Your task to perform on an android device: When is my next appointment? Image 0: 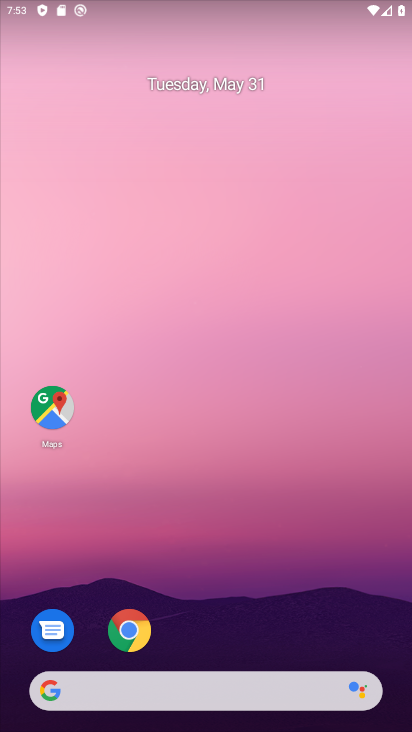
Step 0: drag from (270, 649) to (195, 79)
Your task to perform on an android device: When is my next appointment? Image 1: 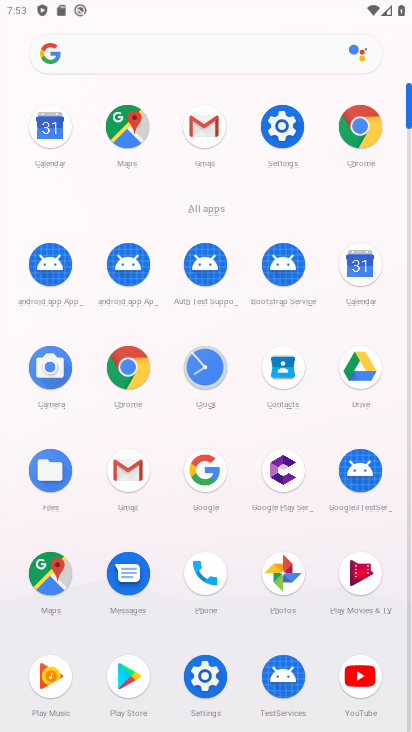
Step 1: click (354, 273)
Your task to perform on an android device: When is my next appointment? Image 2: 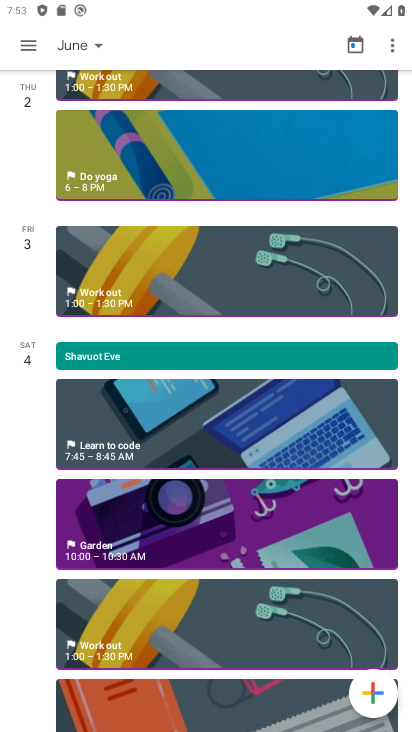
Step 2: click (28, 43)
Your task to perform on an android device: When is my next appointment? Image 3: 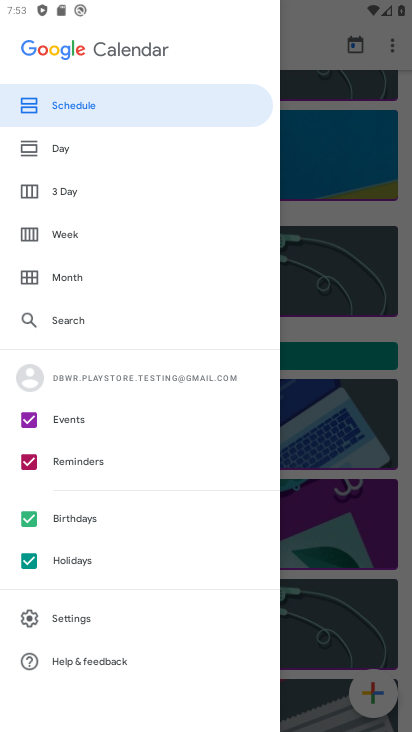
Step 3: click (84, 104)
Your task to perform on an android device: When is my next appointment? Image 4: 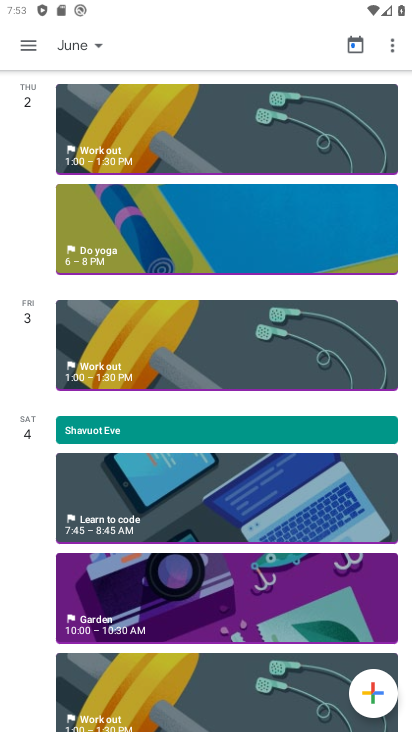
Step 4: task complete